Your task to perform on an android device: Go to calendar. Show me events next week Image 0: 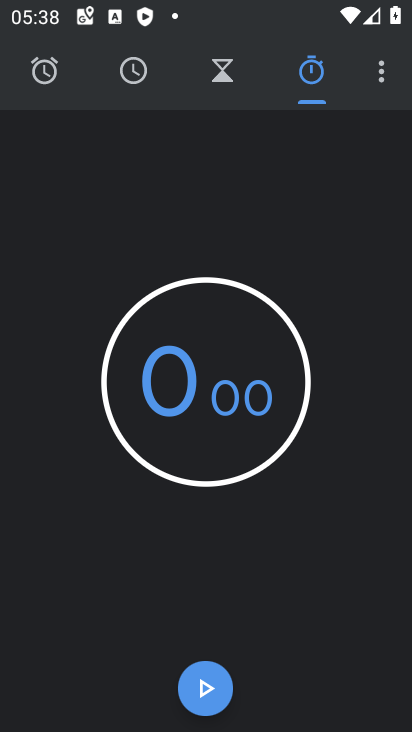
Step 0: press home button
Your task to perform on an android device: Go to calendar. Show me events next week Image 1: 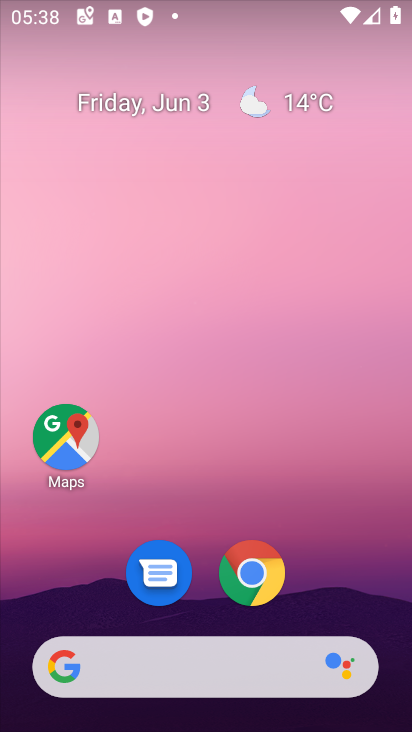
Step 1: drag from (131, 672) to (137, 38)
Your task to perform on an android device: Go to calendar. Show me events next week Image 2: 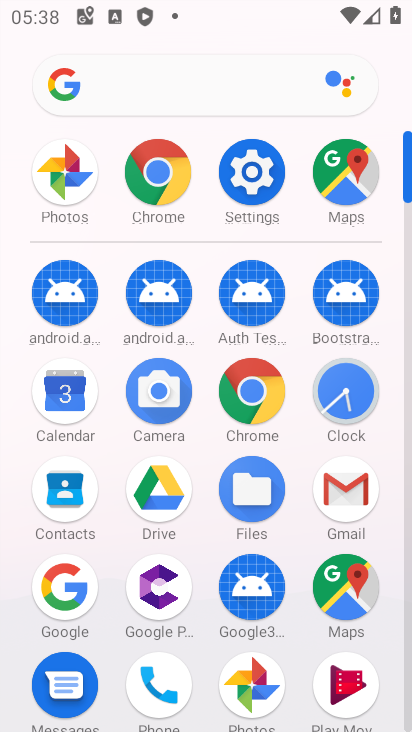
Step 2: click (64, 401)
Your task to perform on an android device: Go to calendar. Show me events next week Image 3: 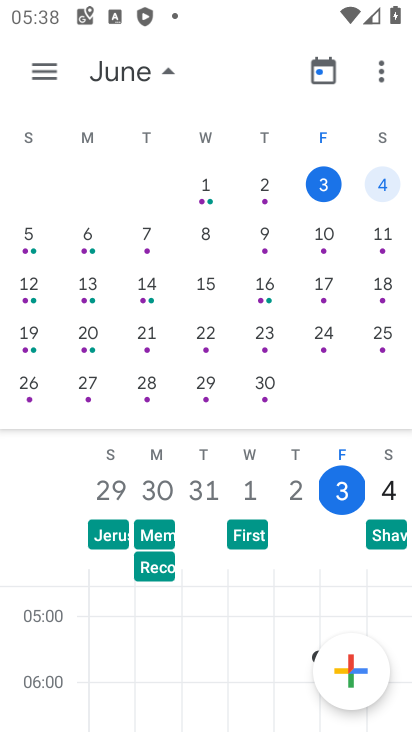
Step 3: click (328, 234)
Your task to perform on an android device: Go to calendar. Show me events next week Image 4: 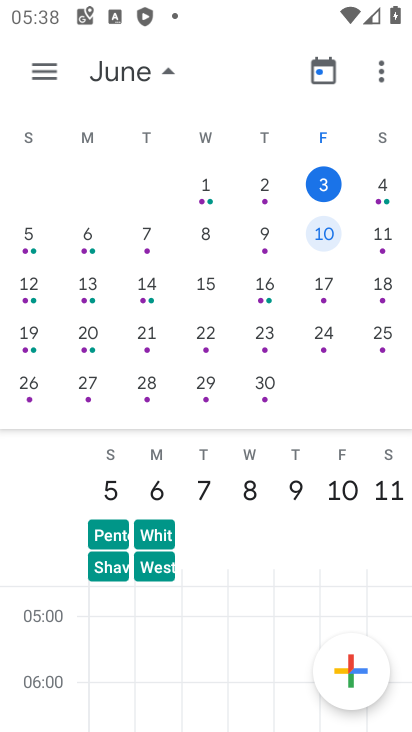
Step 4: click (342, 232)
Your task to perform on an android device: Go to calendar. Show me events next week Image 5: 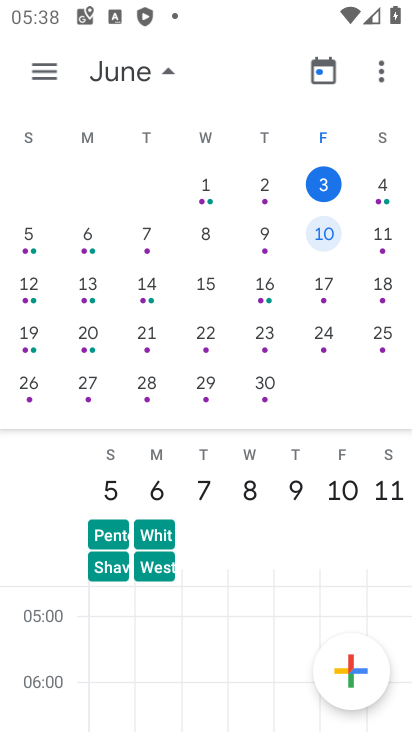
Step 5: task complete